Your task to perform on an android device: turn on bluetooth scan Image 0: 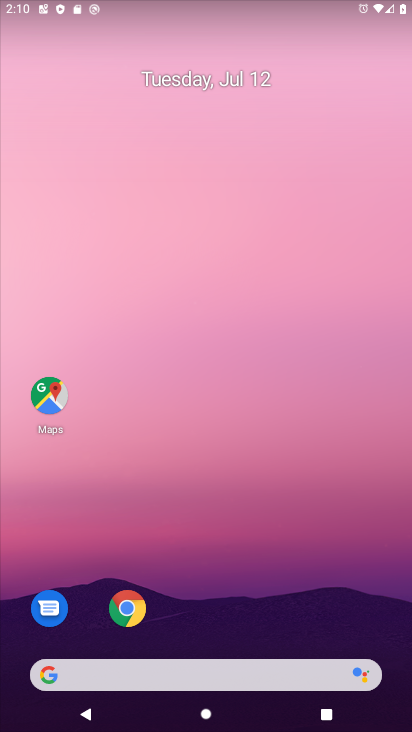
Step 0: drag from (273, 591) to (210, 14)
Your task to perform on an android device: turn on bluetooth scan Image 1: 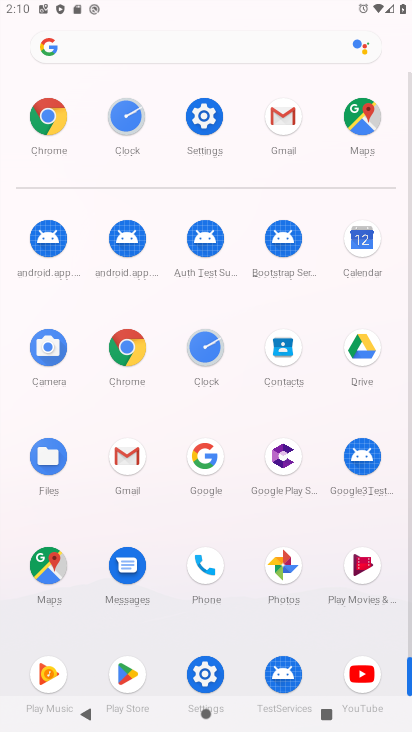
Step 1: click (212, 117)
Your task to perform on an android device: turn on bluetooth scan Image 2: 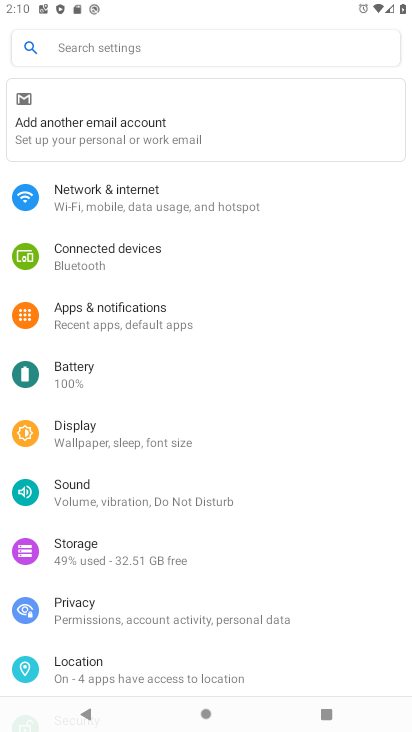
Step 2: click (107, 662)
Your task to perform on an android device: turn on bluetooth scan Image 3: 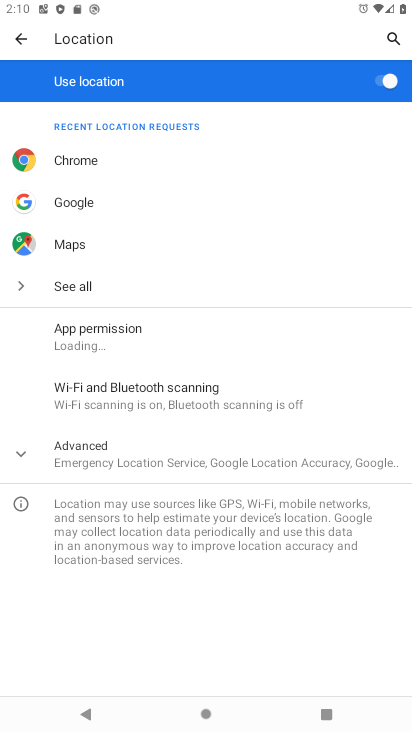
Step 3: click (99, 395)
Your task to perform on an android device: turn on bluetooth scan Image 4: 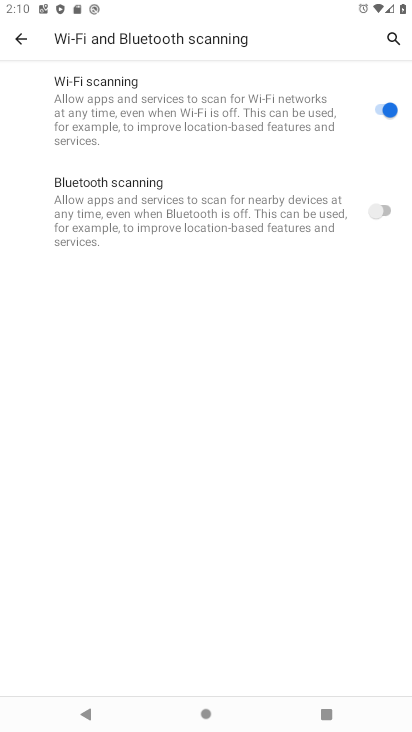
Step 4: click (389, 210)
Your task to perform on an android device: turn on bluetooth scan Image 5: 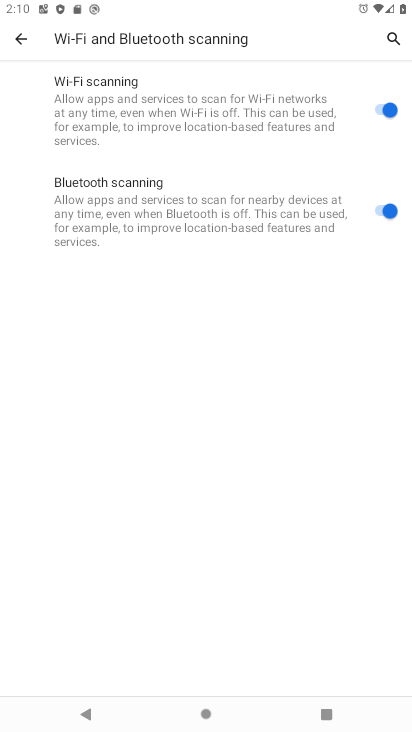
Step 5: task complete